Your task to perform on an android device: star an email in the gmail app Image 0: 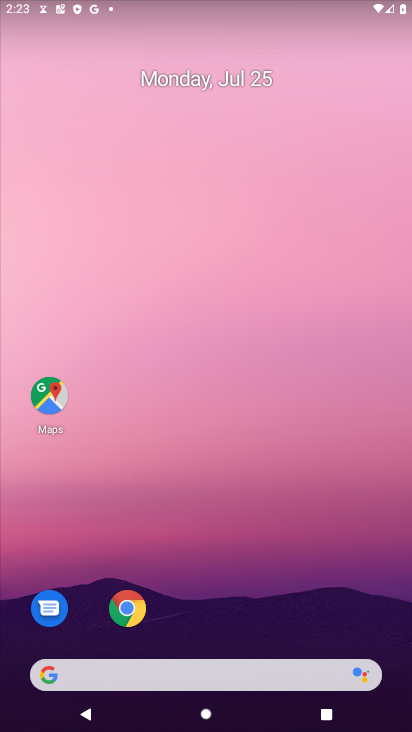
Step 0: drag from (202, 678) to (316, 1)
Your task to perform on an android device: star an email in the gmail app Image 1: 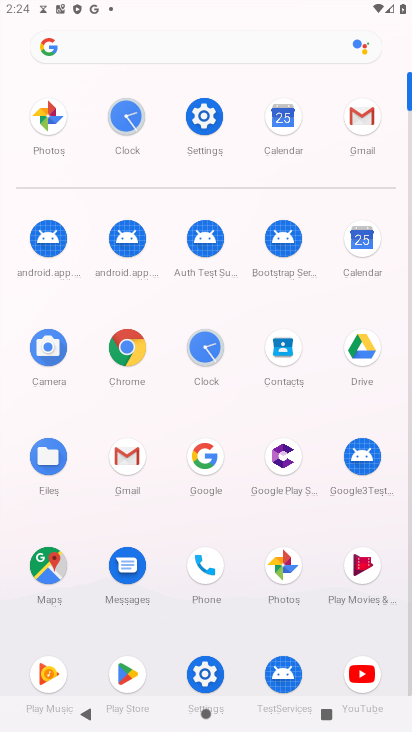
Step 1: click (361, 115)
Your task to perform on an android device: star an email in the gmail app Image 2: 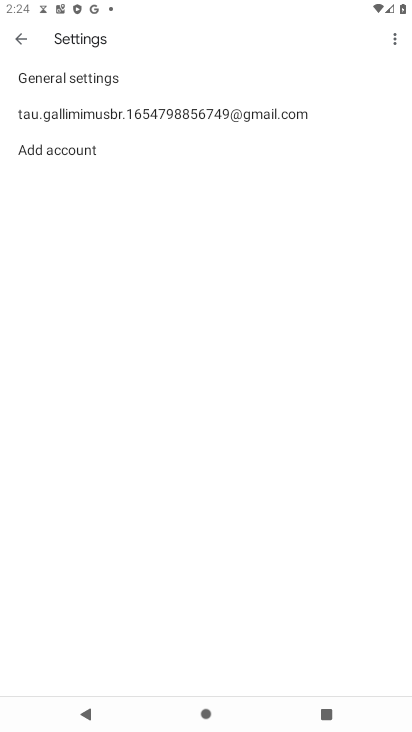
Step 2: press back button
Your task to perform on an android device: star an email in the gmail app Image 3: 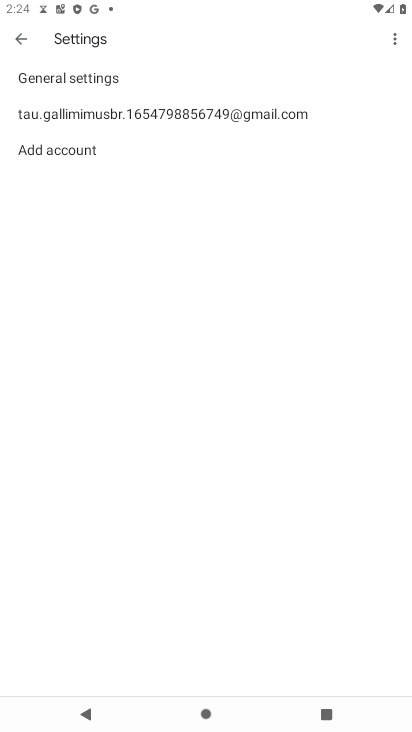
Step 3: press back button
Your task to perform on an android device: star an email in the gmail app Image 4: 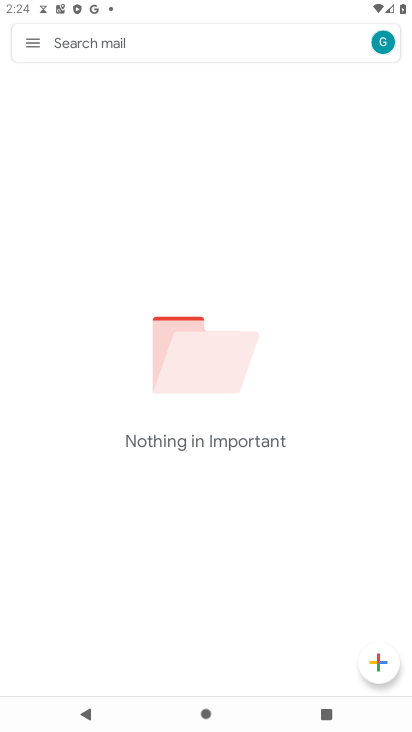
Step 4: click (42, 46)
Your task to perform on an android device: star an email in the gmail app Image 5: 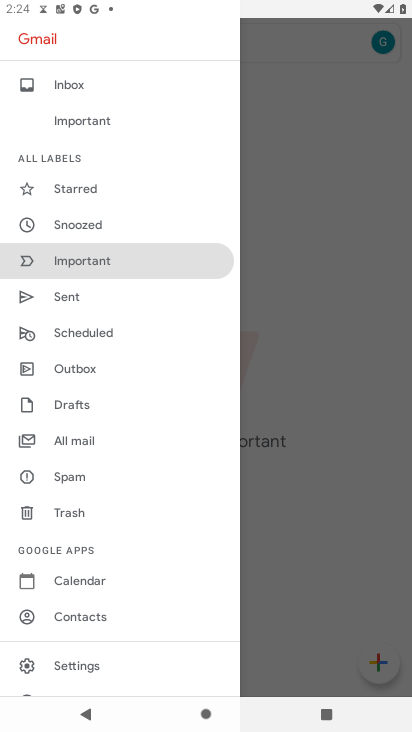
Step 5: click (65, 444)
Your task to perform on an android device: star an email in the gmail app Image 6: 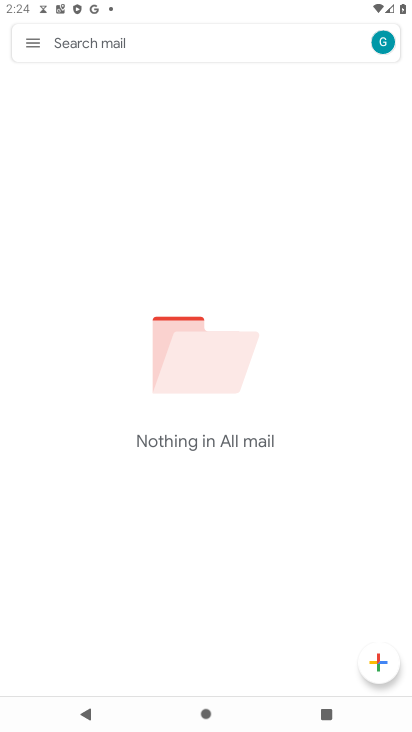
Step 6: click (37, 34)
Your task to perform on an android device: star an email in the gmail app Image 7: 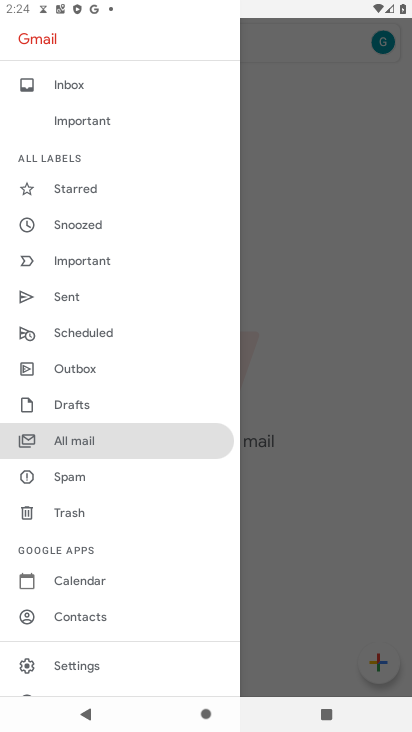
Step 7: click (63, 481)
Your task to perform on an android device: star an email in the gmail app Image 8: 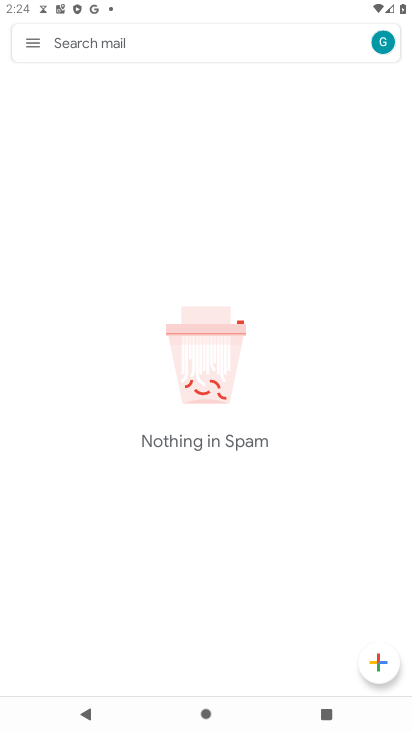
Step 8: click (43, 41)
Your task to perform on an android device: star an email in the gmail app Image 9: 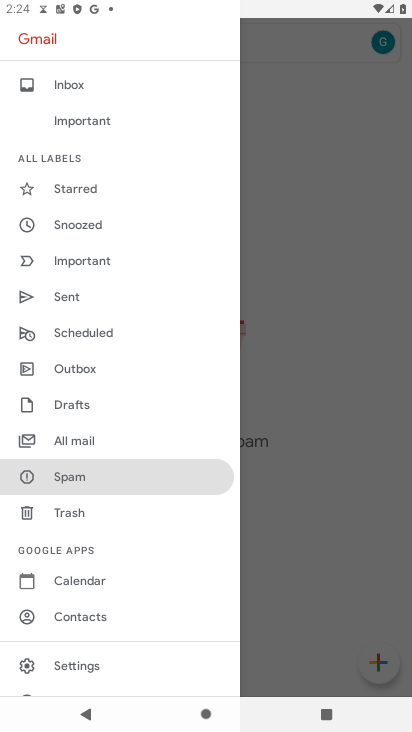
Step 9: click (81, 518)
Your task to perform on an android device: star an email in the gmail app Image 10: 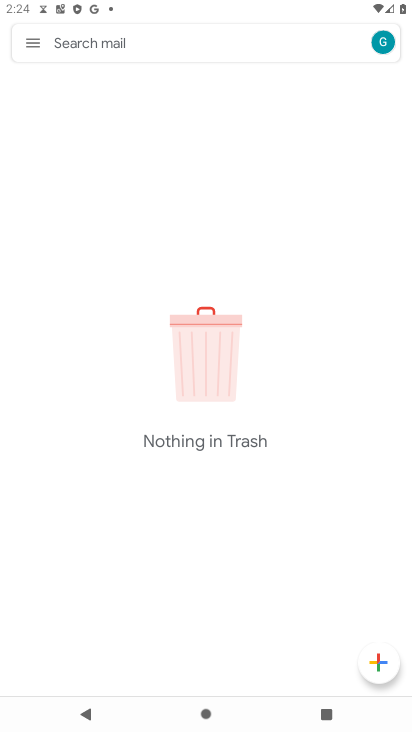
Step 10: click (36, 38)
Your task to perform on an android device: star an email in the gmail app Image 11: 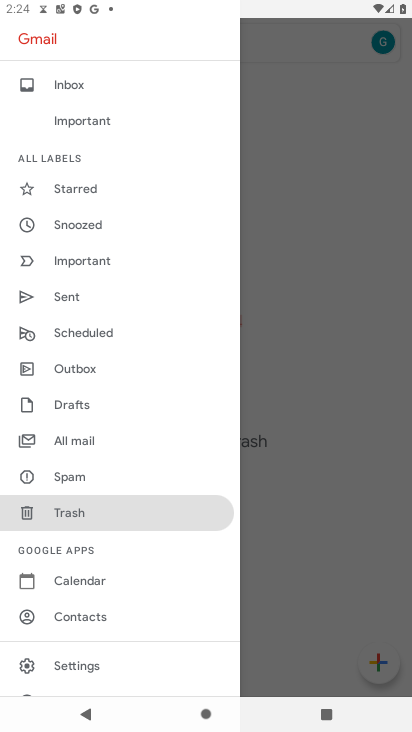
Step 11: task complete